Your task to perform on an android device: move a message to another label in the gmail app Image 0: 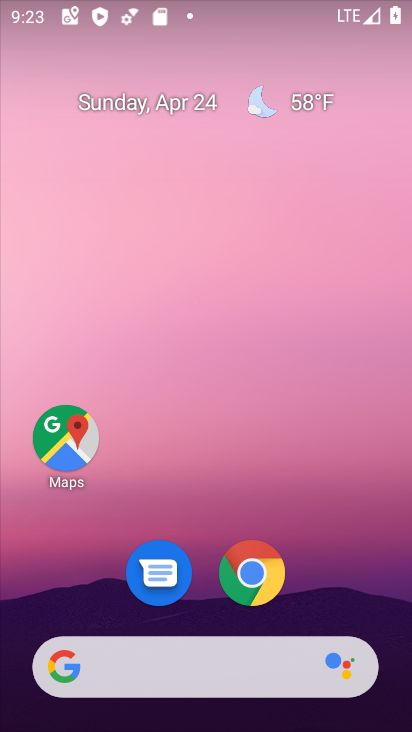
Step 0: drag from (316, 507) to (291, 127)
Your task to perform on an android device: move a message to another label in the gmail app Image 1: 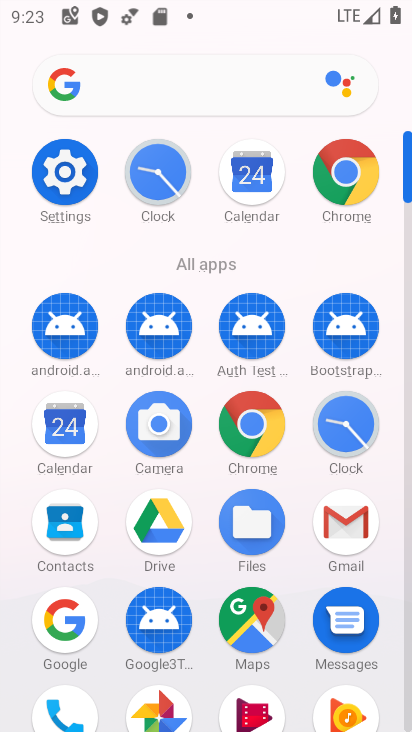
Step 1: click (352, 510)
Your task to perform on an android device: move a message to another label in the gmail app Image 2: 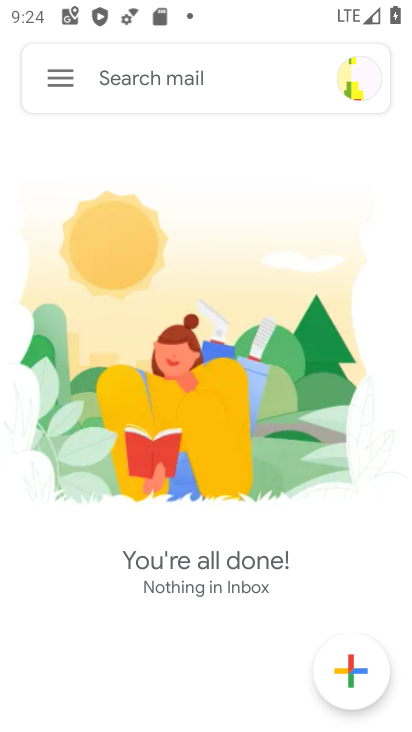
Step 2: click (75, 78)
Your task to perform on an android device: move a message to another label in the gmail app Image 3: 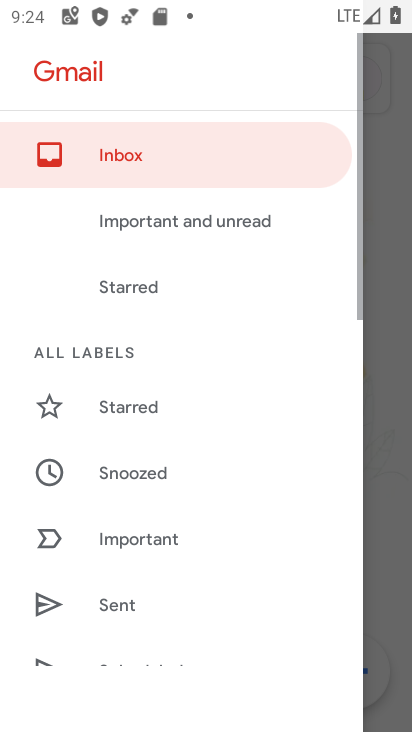
Step 3: click (376, 298)
Your task to perform on an android device: move a message to another label in the gmail app Image 4: 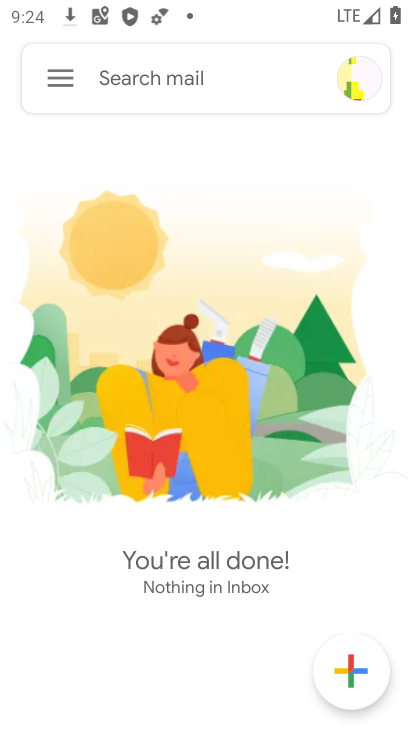
Step 4: click (52, 81)
Your task to perform on an android device: move a message to another label in the gmail app Image 5: 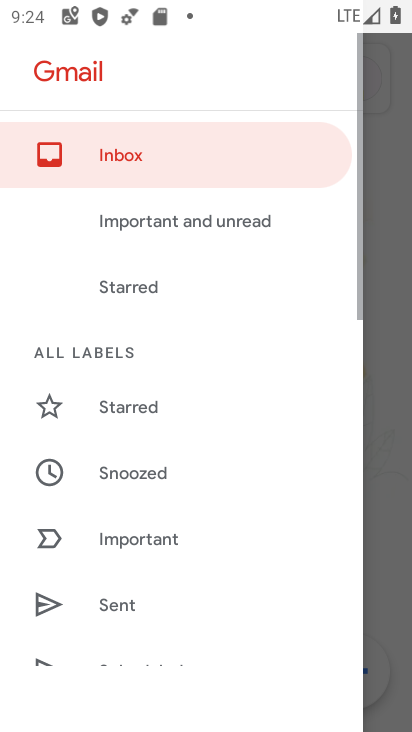
Step 5: drag from (188, 533) to (283, 66)
Your task to perform on an android device: move a message to another label in the gmail app Image 6: 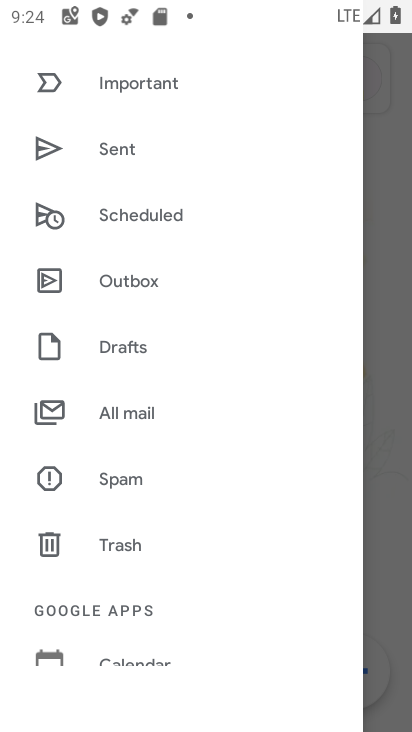
Step 6: click (128, 413)
Your task to perform on an android device: move a message to another label in the gmail app Image 7: 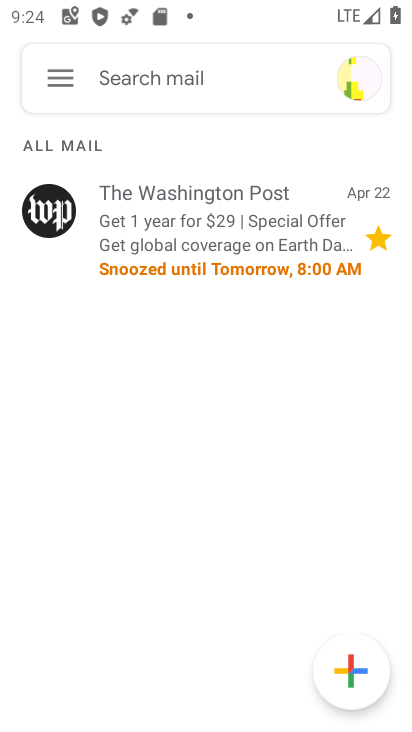
Step 7: click (273, 223)
Your task to perform on an android device: move a message to another label in the gmail app Image 8: 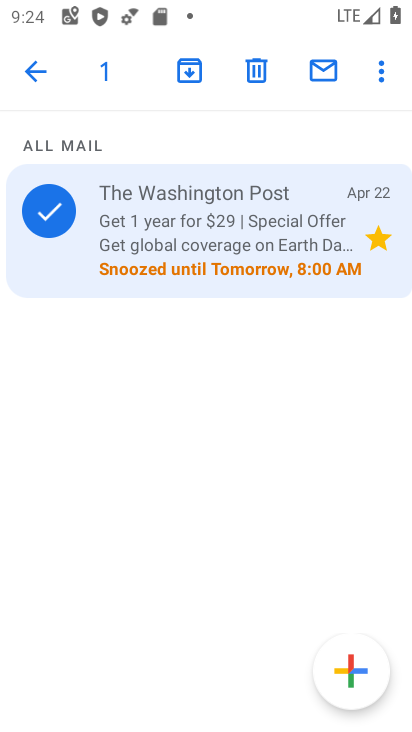
Step 8: click (385, 64)
Your task to perform on an android device: move a message to another label in the gmail app Image 9: 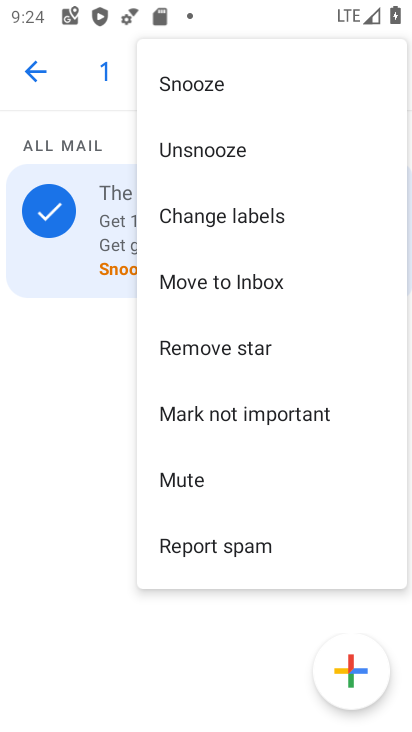
Step 9: click (269, 224)
Your task to perform on an android device: move a message to another label in the gmail app Image 10: 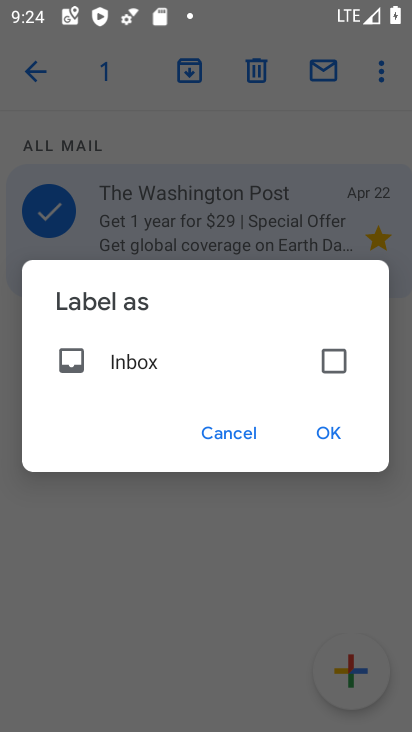
Step 10: click (339, 354)
Your task to perform on an android device: move a message to another label in the gmail app Image 11: 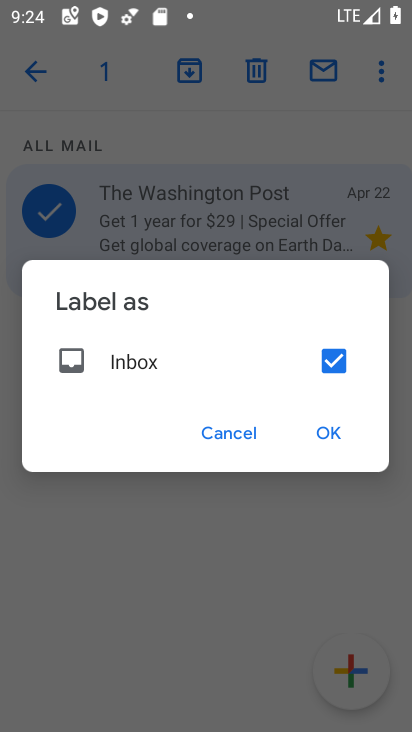
Step 11: click (335, 436)
Your task to perform on an android device: move a message to another label in the gmail app Image 12: 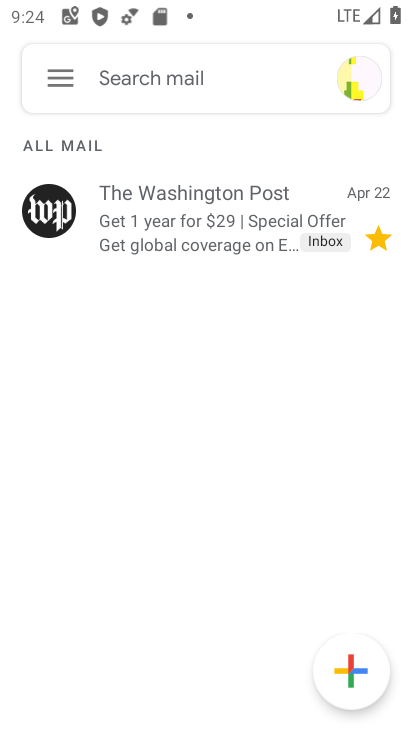
Step 12: task complete